Your task to perform on an android device: Open calendar and show me the first week of next month Image 0: 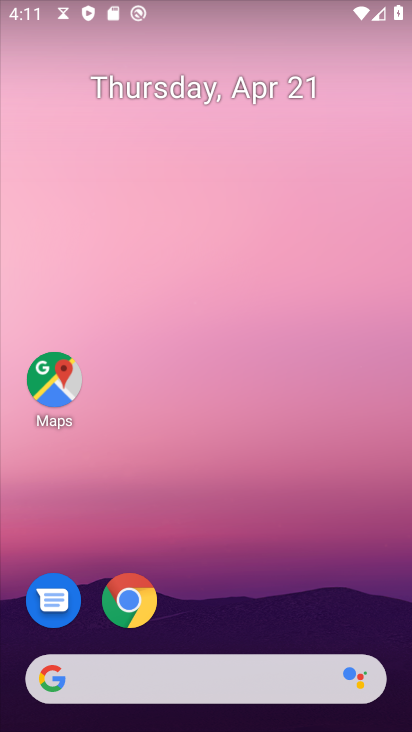
Step 0: drag from (223, 609) to (248, 28)
Your task to perform on an android device: Open calendar and show me the first week of next month Image 1: 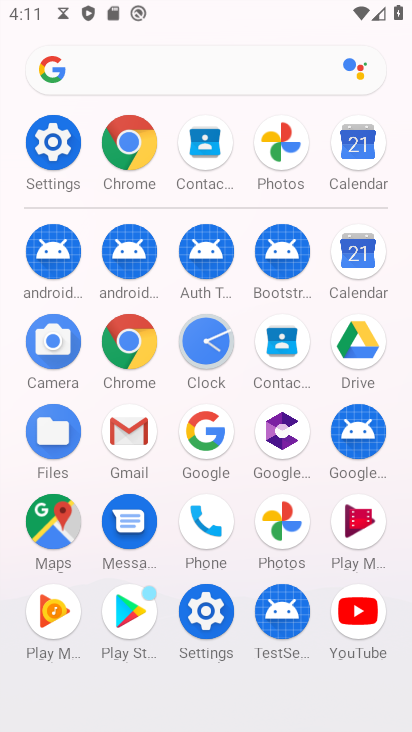
Step 1: click (357, 145)
Your task to perform on an android device: Open calendar and show me the first week of next month Image 2: 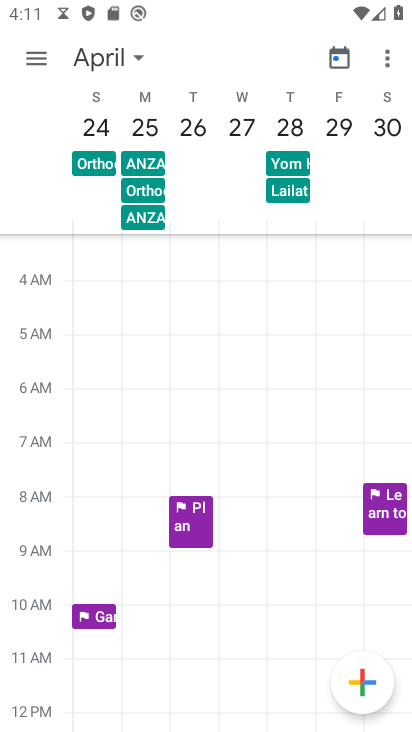
Step 2: click (340, 59)
Your task to perform on an android device: Open calendar and show me the first week of next month Image 3: 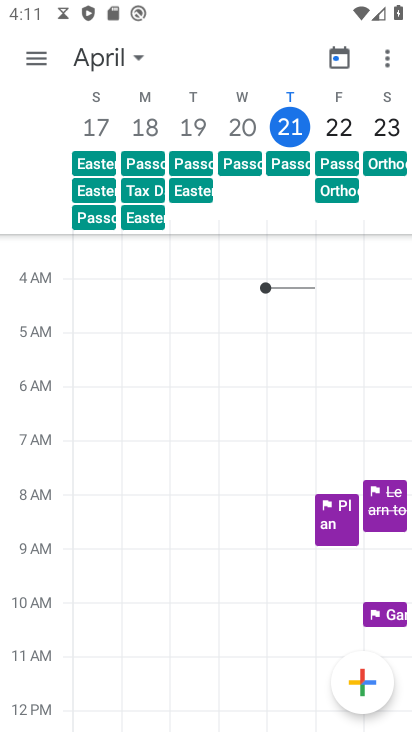
Step 3: click (130, 56)
Your task to perform on an android device: Open calendar and show me the first week of next month Image 4: 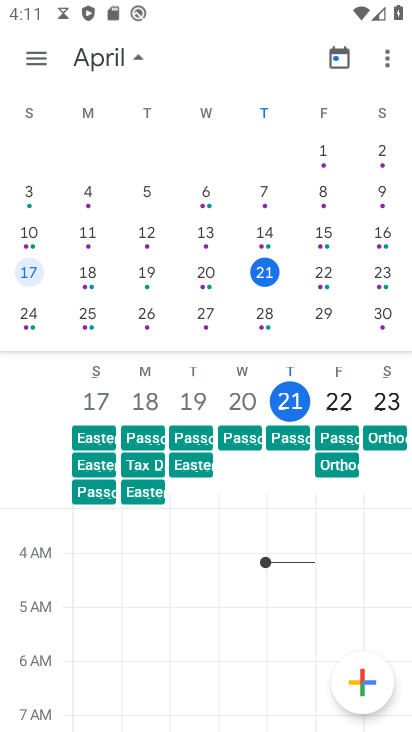
Step 4: drag from (357, 257) to (76, 302)
Your task to perform on an android device: Open calendar and show me the first week of next month Image 5: 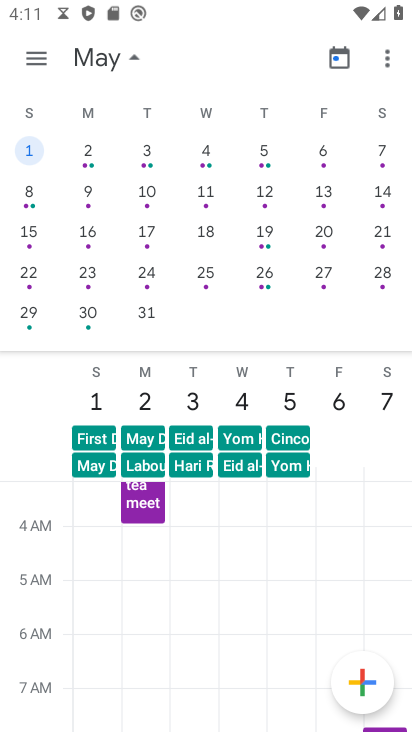
Step 5: click (89, 157)
Your task to perform on an android device: Open calendar and show me the first week of next month Image 6: 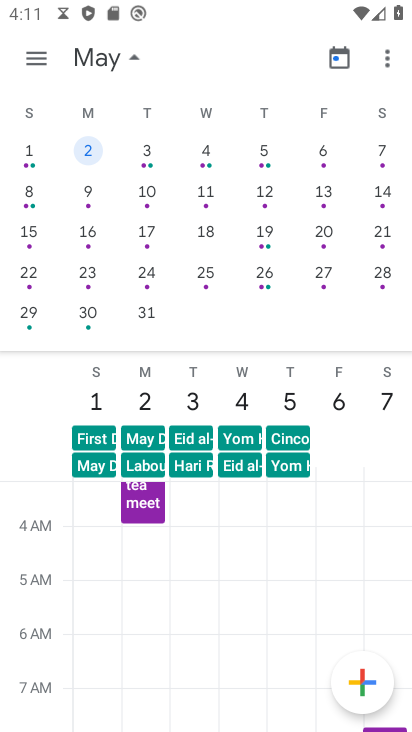
Step 6: click (34, 60)
Your task to perform on an android device: Open calendar and show me the first week of next month Image 7: 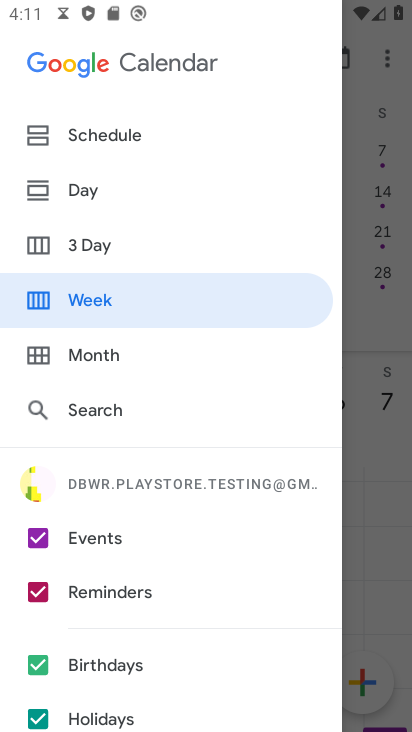
Step 7: click (104, 295)
Your task to perform on an android device: Open calendar and show me the first week of next month Image 8: 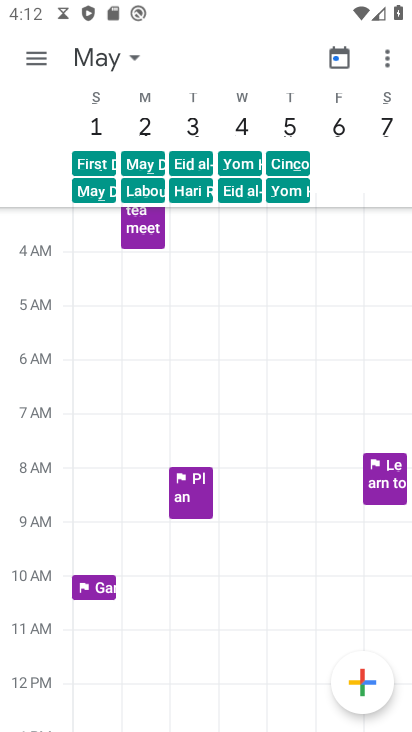
Step 8: task complete